Your task to perform on an android device: add a contact in the contacts app Image 0: 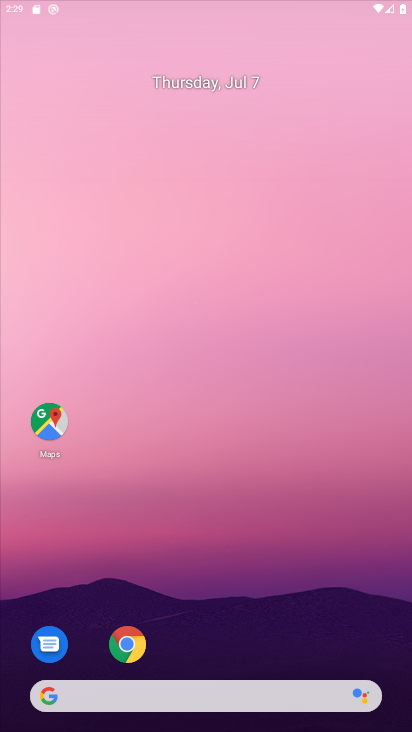
Step 0: drag from (205, 649) to (317, 102)
Your task to perform on an android device: add a contact in the contacts app Image 1: 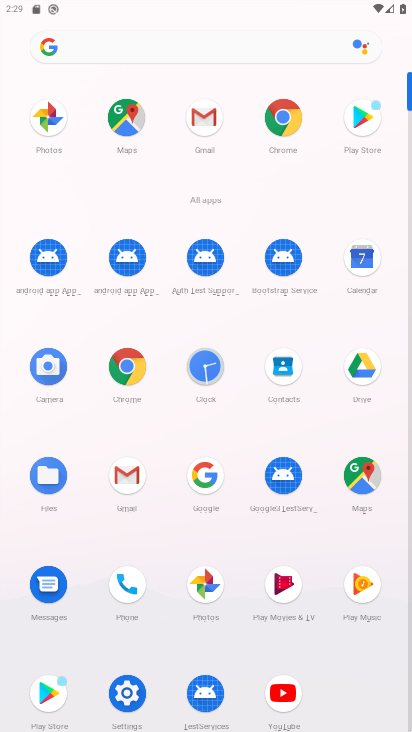
Step 1: click (285, 373)
Your task to perform on an android device: add a contact in the contacts app Image 2: 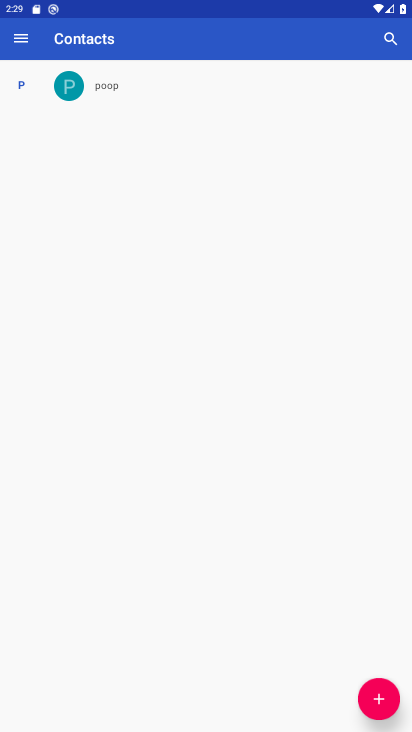
Step 2: click (392, 709)
Your task to perform on an android device: add a contact in the contacts app Image 3: 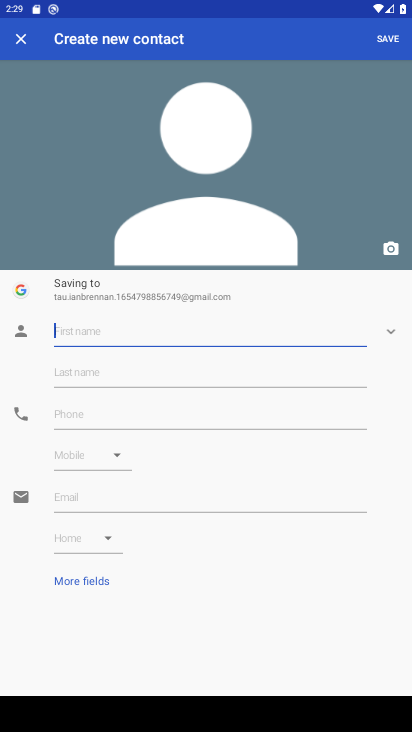
Step 3: type "fiiiiiiiiiiiiiiiiiiiiii"
Your task to perform on an android device: add a contact in the contacts app Image 4: 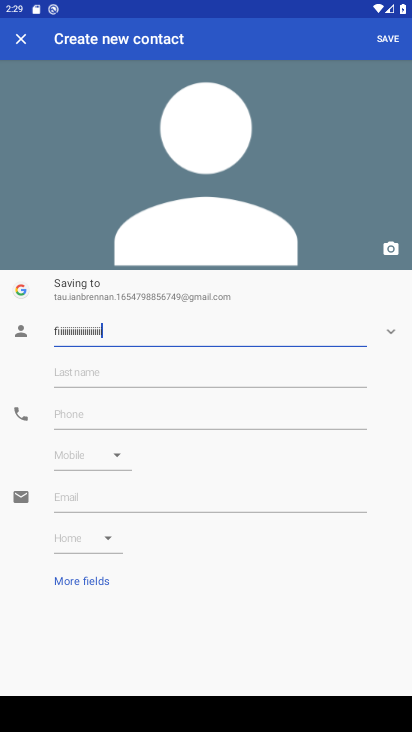
Step 4: click (89, 427)
Your task to perform on an android device: add a contact in the contacts app Image 5: 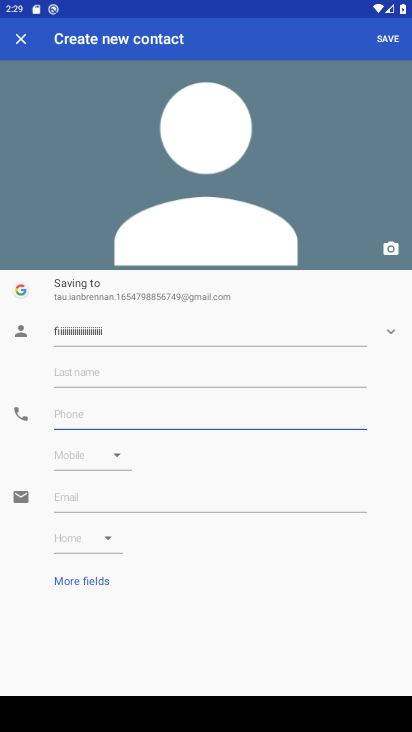
Step 5: type "23232323233"
Your task to perform on an android device: add a contact in the contacts app Image 6: 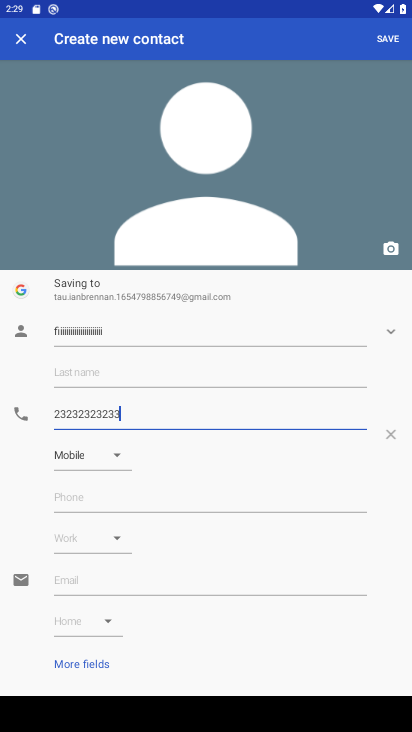
Step 6: click (396, 44)
Your task to perform on an android device: add a contact in the contacts app Image 7: 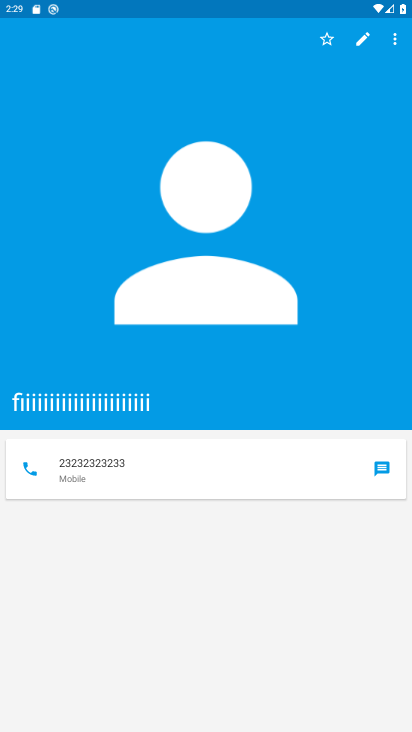
Step 7: task complete